Your task to perform on an android device: set default search engine in the chrome app Image 0: 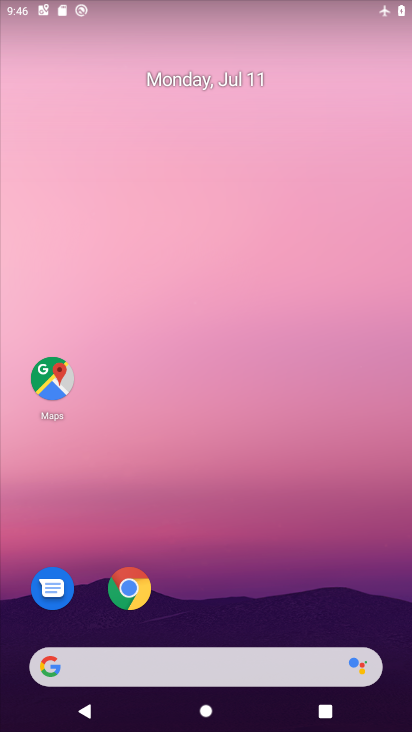
Step 0: drag from (319, 585) to (311, 64)
Your task to perform on an android device: set default search engine in the chrome app Image 1: 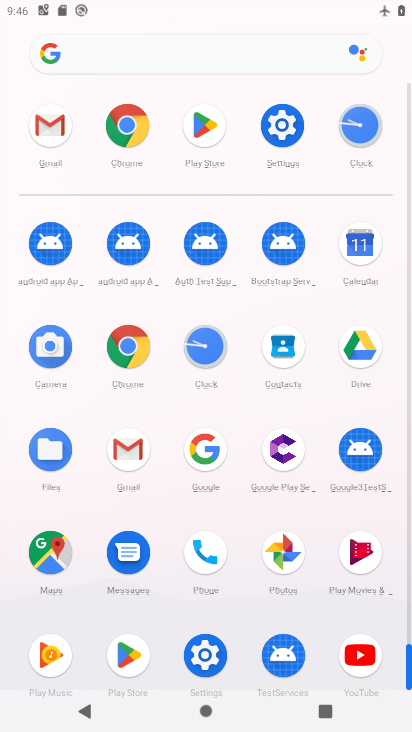
Step 1: click (126, 342)
Your task to perform on an android device: set default search engine in the chrome app Image 2: 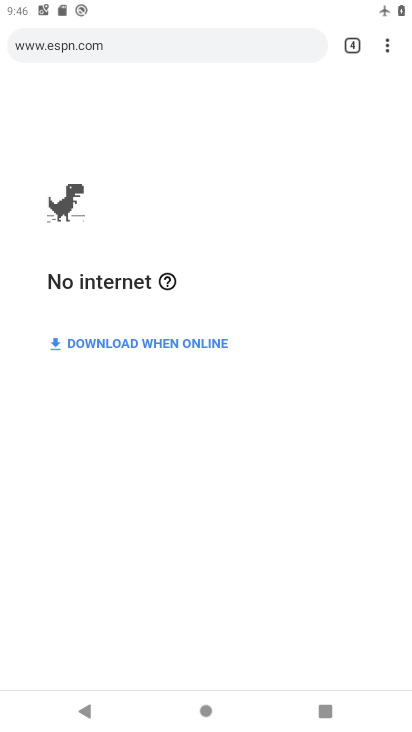
Step 2: click (389, 40)
Your task to perform on an android device: set default search engine in the chrome app Image 3: 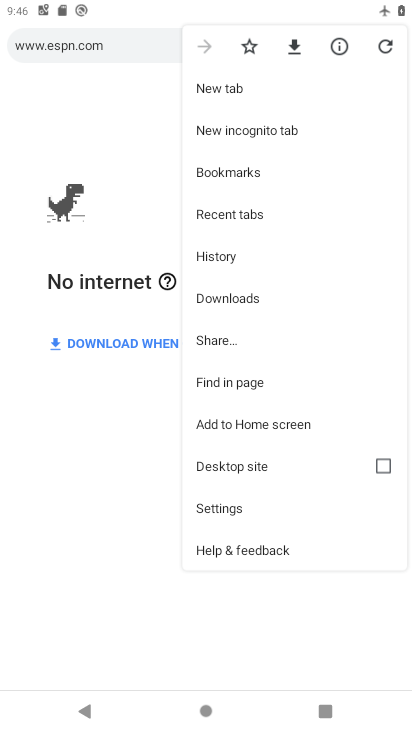
Step 3: click (230, 512)
Your task to perform on an android device: set default search engine in the chrome app Image 4: 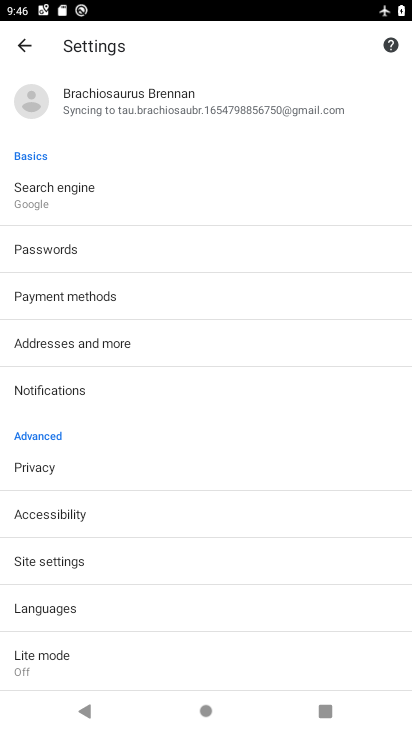
Step 4: click (77, 188)
Your task to perform on an android device: set default search engine in the chrome app Image 5: 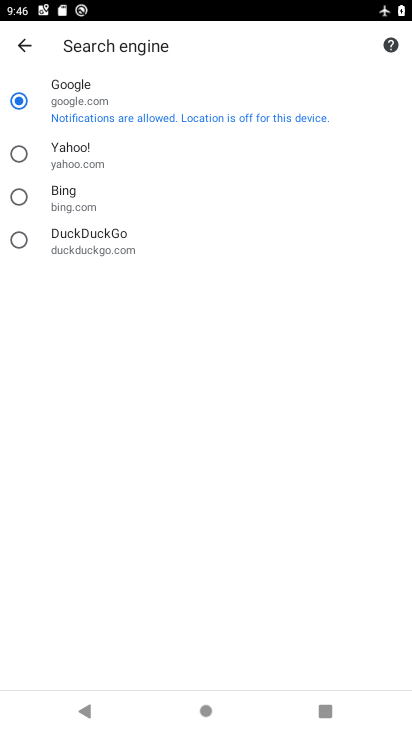
Step 5: click (77, 188)
Your task to perform on an android device: set default search engine in the chrome app Image 6: 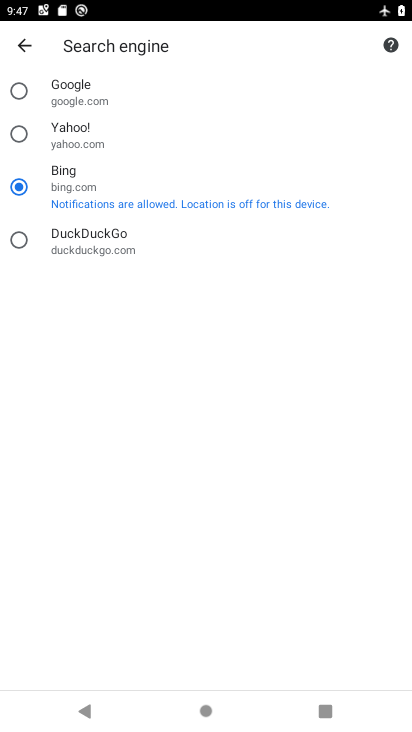
Step 6: task complete